Your task to perform on an android device: What's the weather today? Image 0: 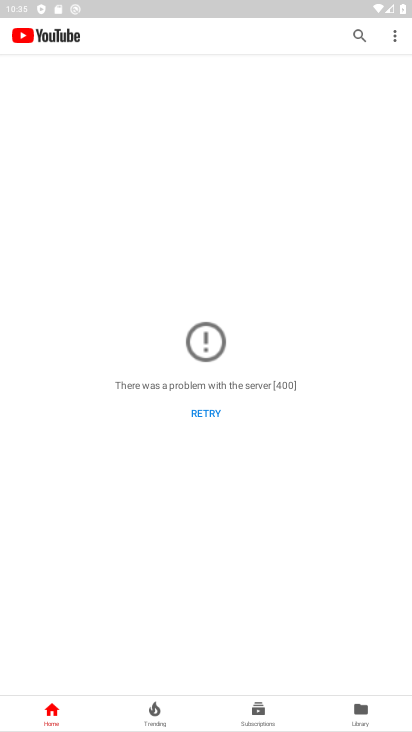
Step 0: press home button
Your task to perform on an android device: What's the weather today? Image 1: 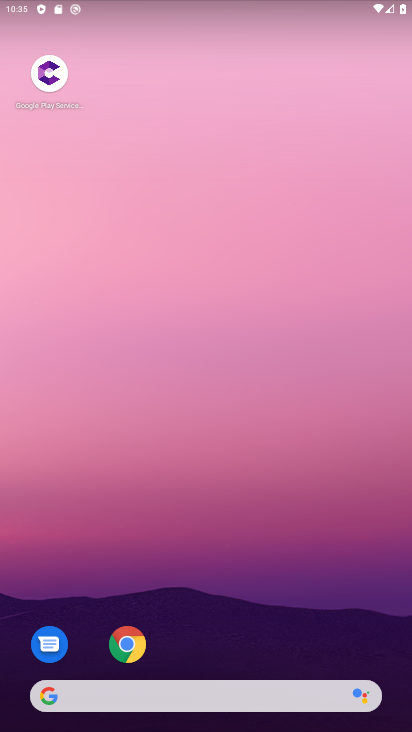
Step 1: drag from (270, 618) to (270, 81)
Your task to perform on an android device: What's the weather today? Image 2: 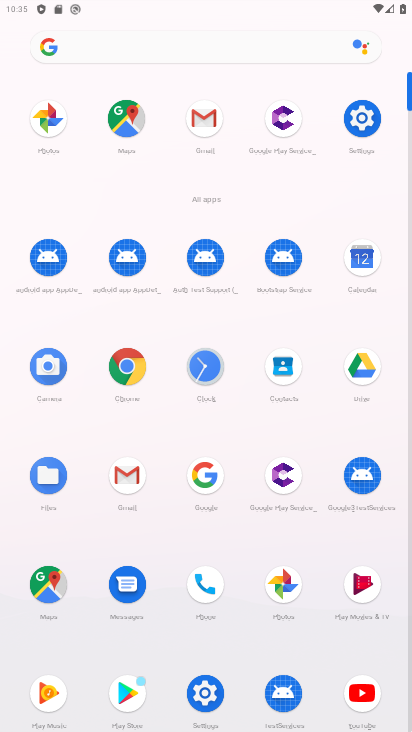
Step 2: click (195, 464)
Your task to perform on an android device: What's the weather today? Image 3: 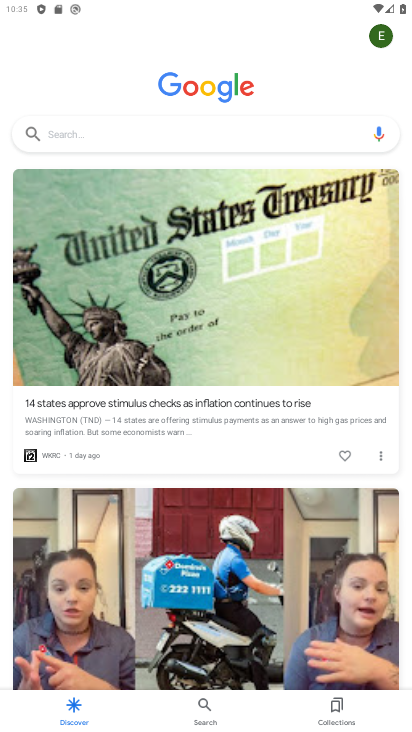
Step 3: click (209, 74)
Your task to perform on an android device: What's the weather today? Image 4: 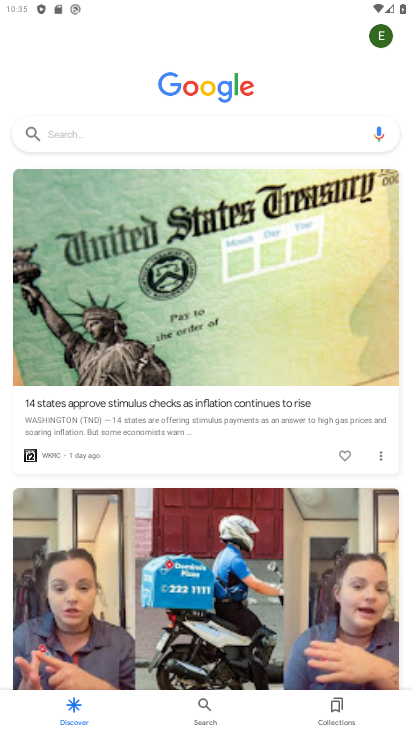
Step 4: click (210, 74)
Your task to perform on an android device: What's the weather today? Image 5: 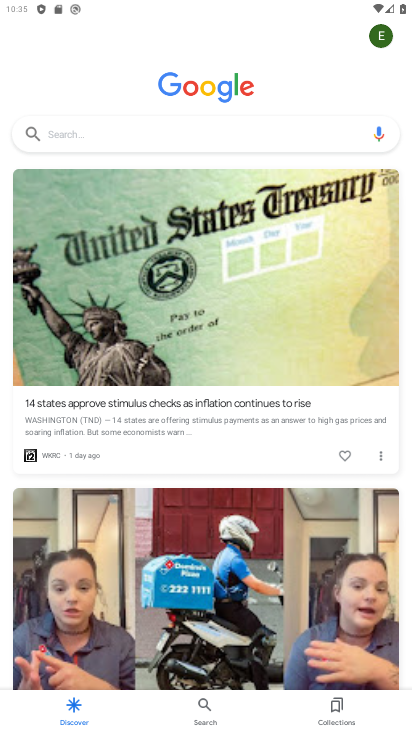
Step 5: drag from (301, 357) to (322, 472)
Your task to perform on an android device: What's the weather today? Image 6: 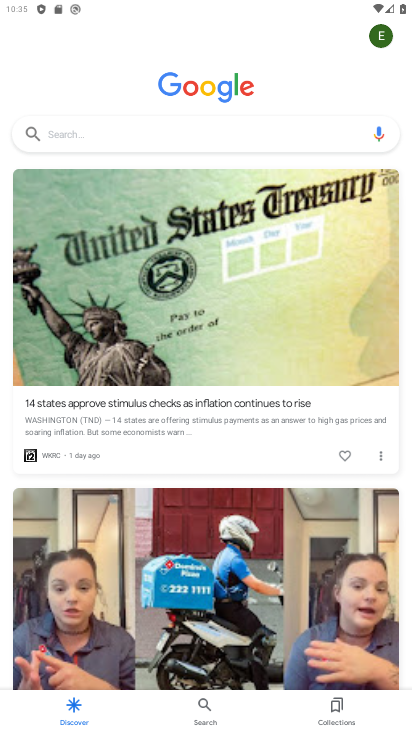
Step 6: click (215, 89)
Your task to perform on an android device: What's the weather today? Image 7: 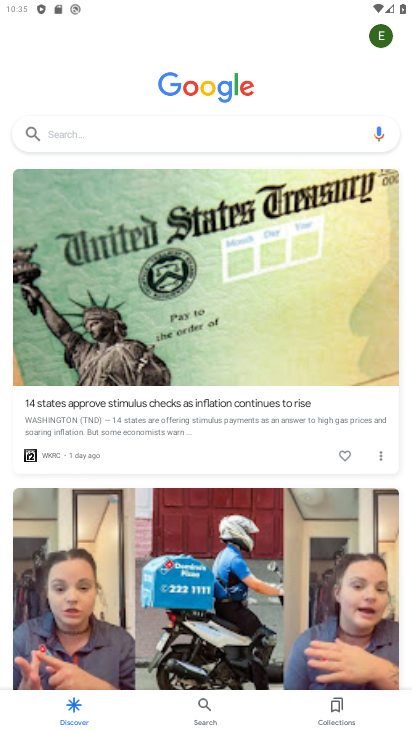
Step 7: click (184, 120)
Your task to perform on an android device: What's the weather today? Image 8: 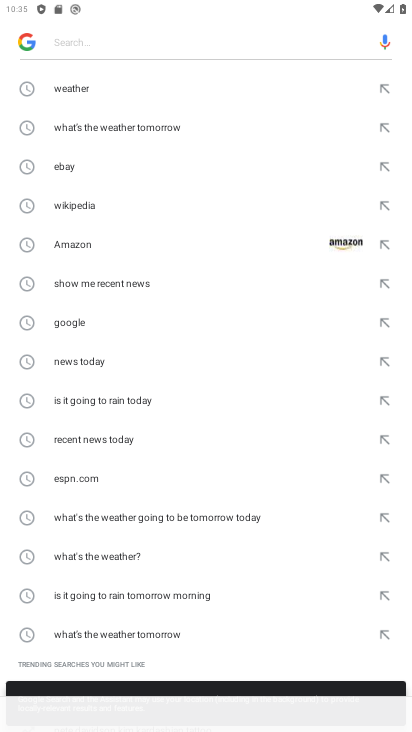
Step 8: click (87, 88)
Your task to perform on an android device: What's the weather today? Image 9: 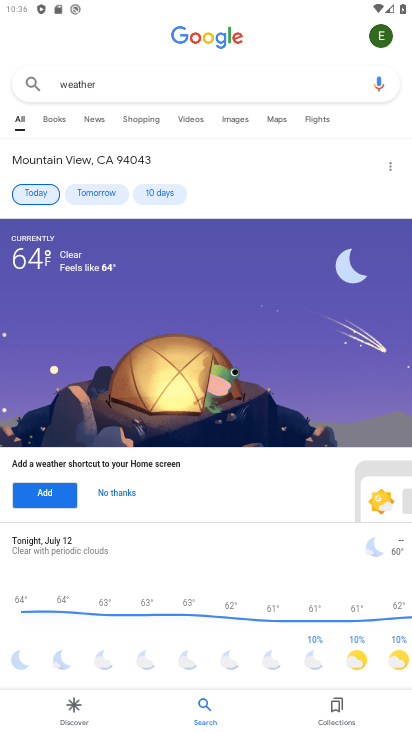
Step 9: task complete